Your task to perform on an android device: add a contact in the contacts app Image 0: 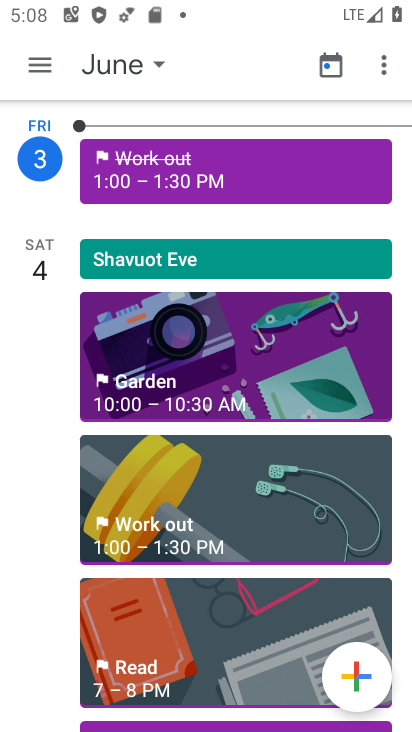
Step 0: task complete